Your task to perform on an android device: open app "Nova Launcher" Image 0: 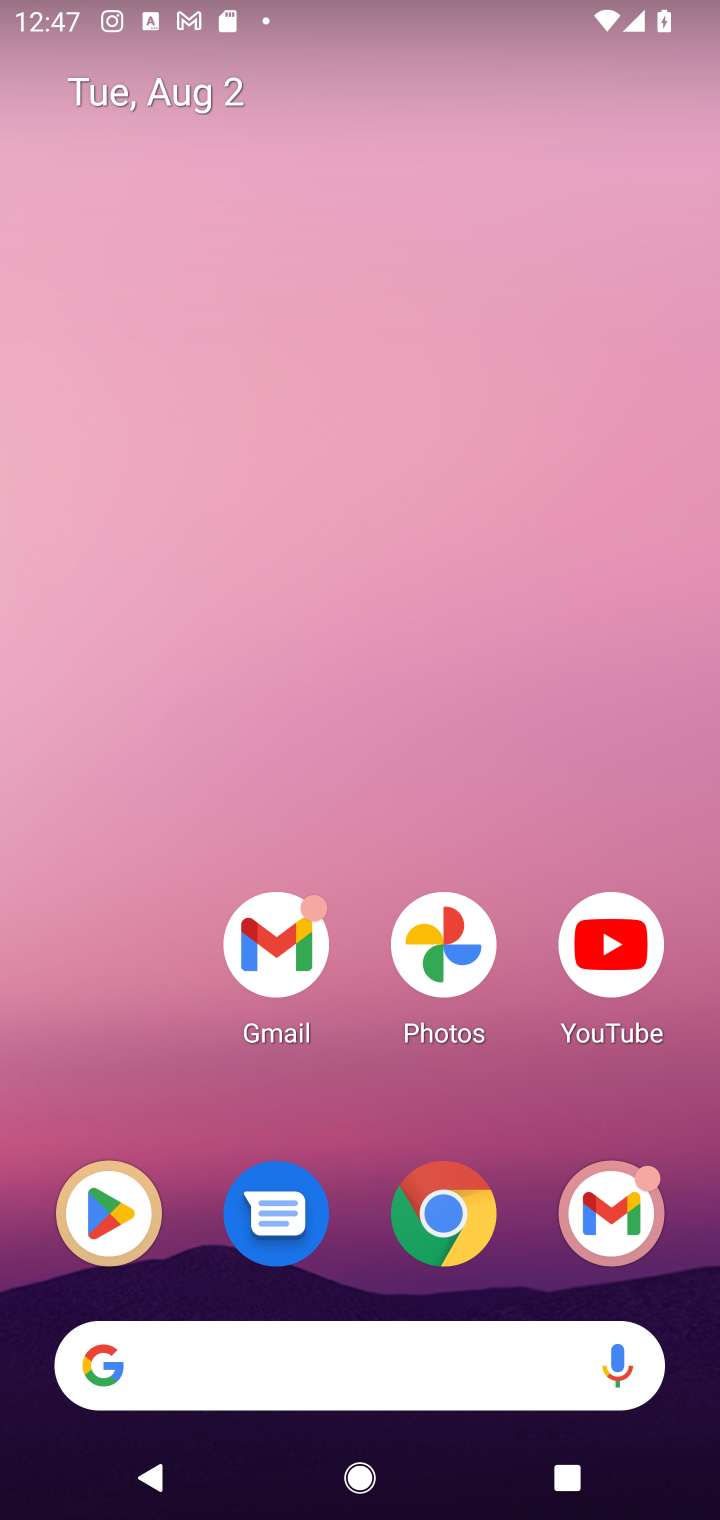
Step 0: click (122, 1192)
Your task to perform on an android device: open app "Nova Launcher" Image 1: 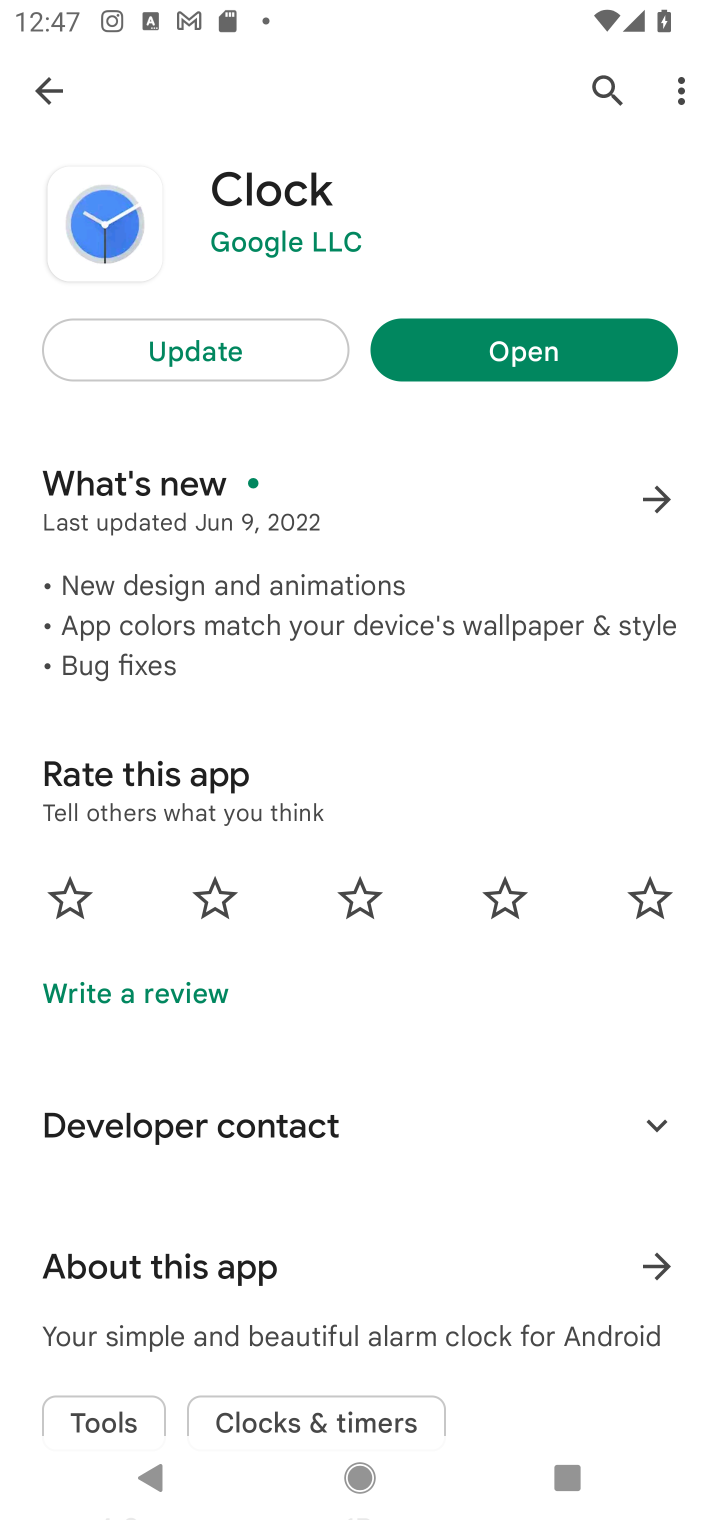
Step 1: click (49, 92)
Your task to perform on an android device: open app "Nova Launcher" Image 2: 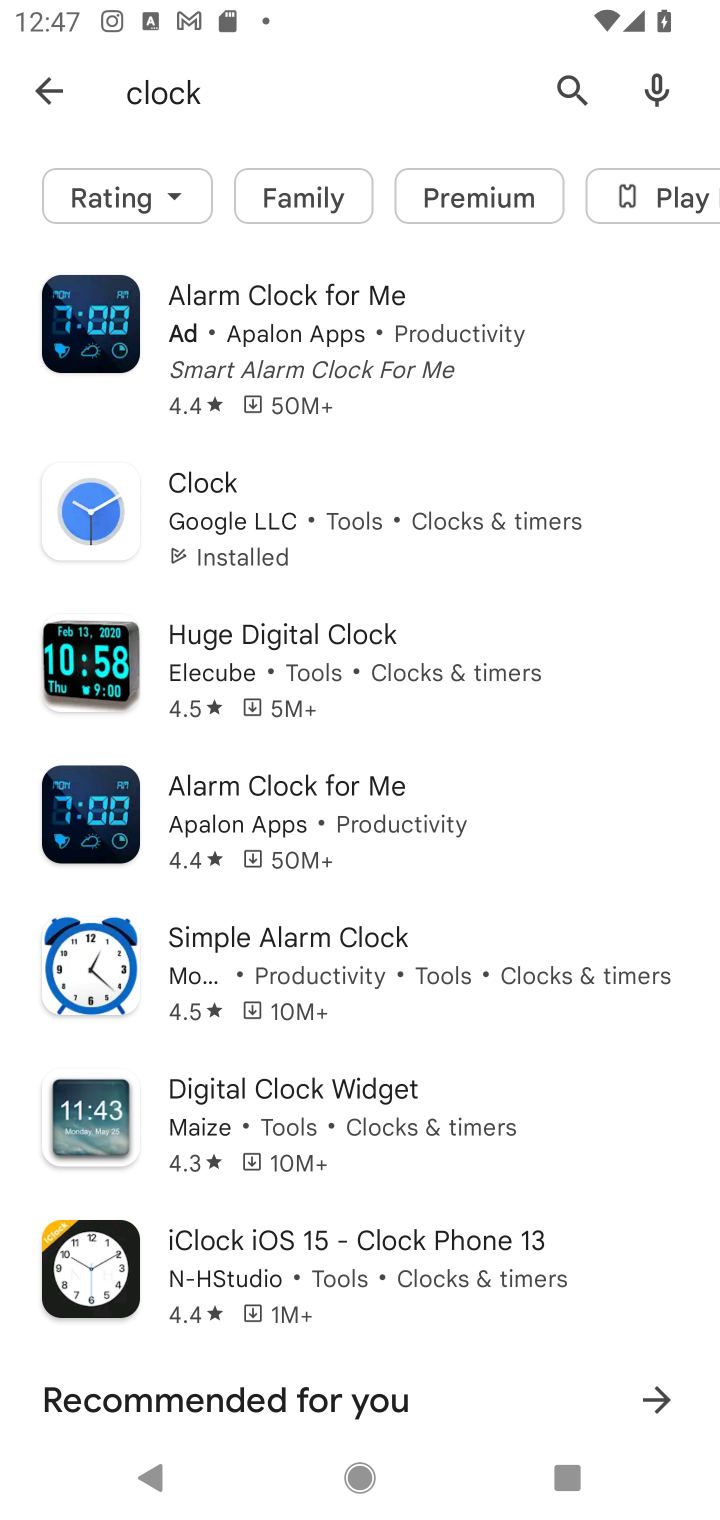
Step 2: click (39, 75)
Your task to perform on an android device: open app "Nova Launcher" Image 3: 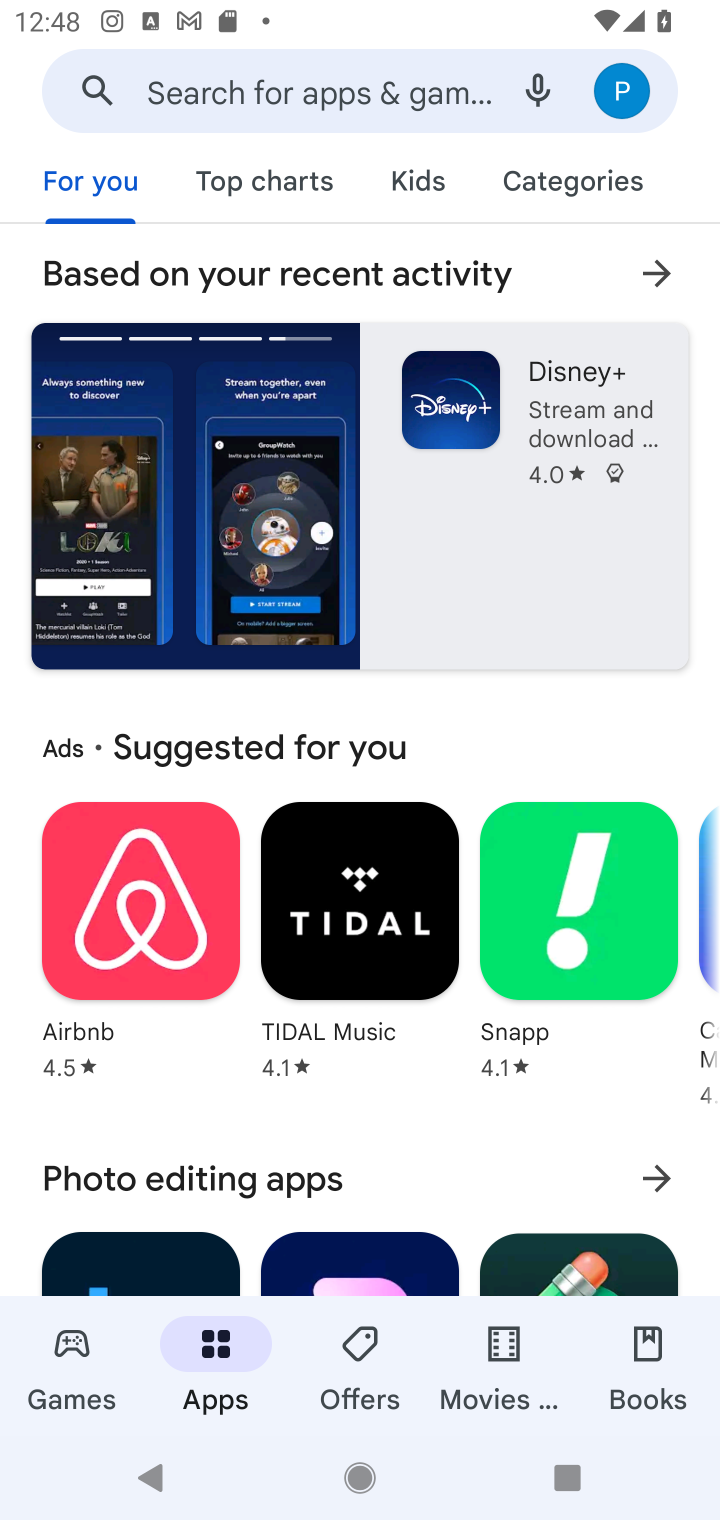
Step 3: click (317, 86)
Your task to perform on an android device: open app "Nova Launcher" Image 4: 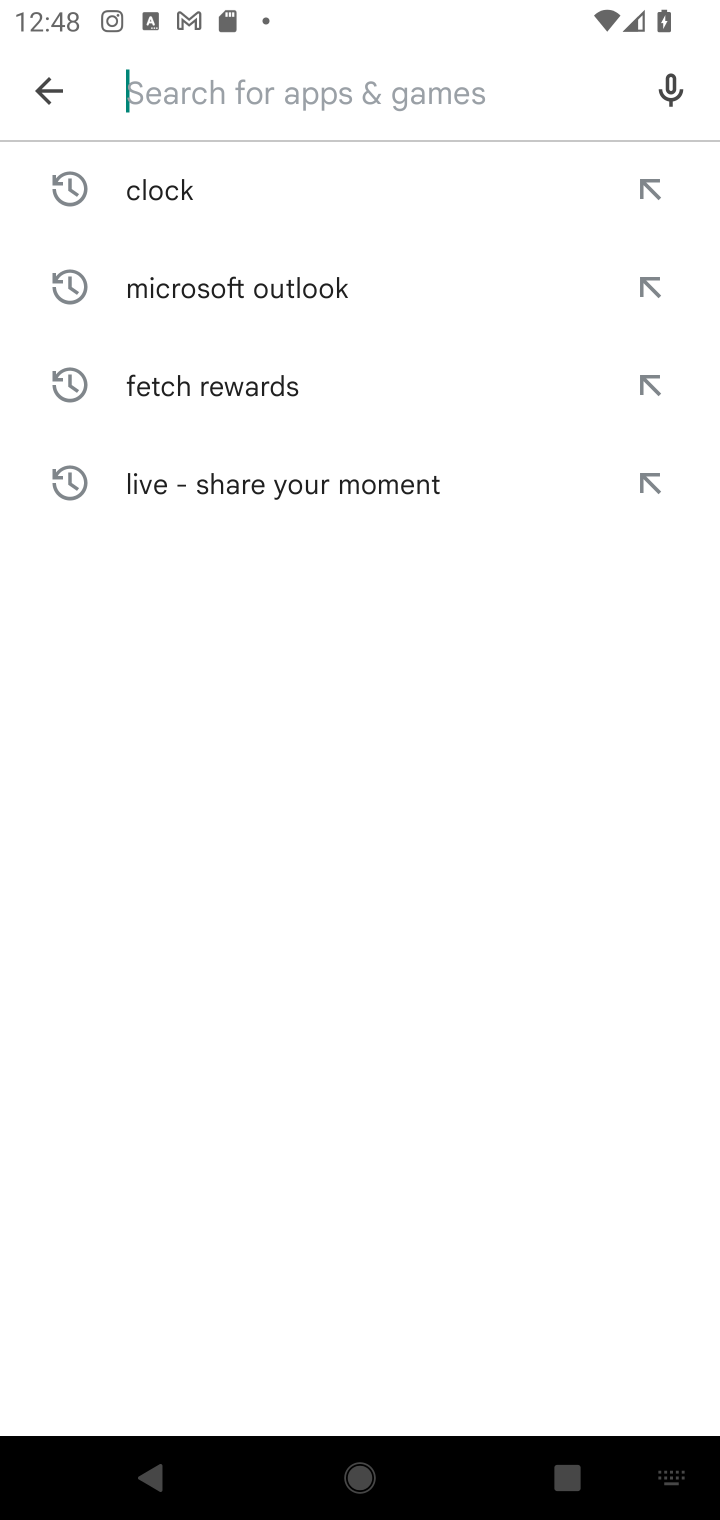
Step 4: type "Nova Launcher"
Your task to perform on an android device: open app "Nova Launcher" Image 5: 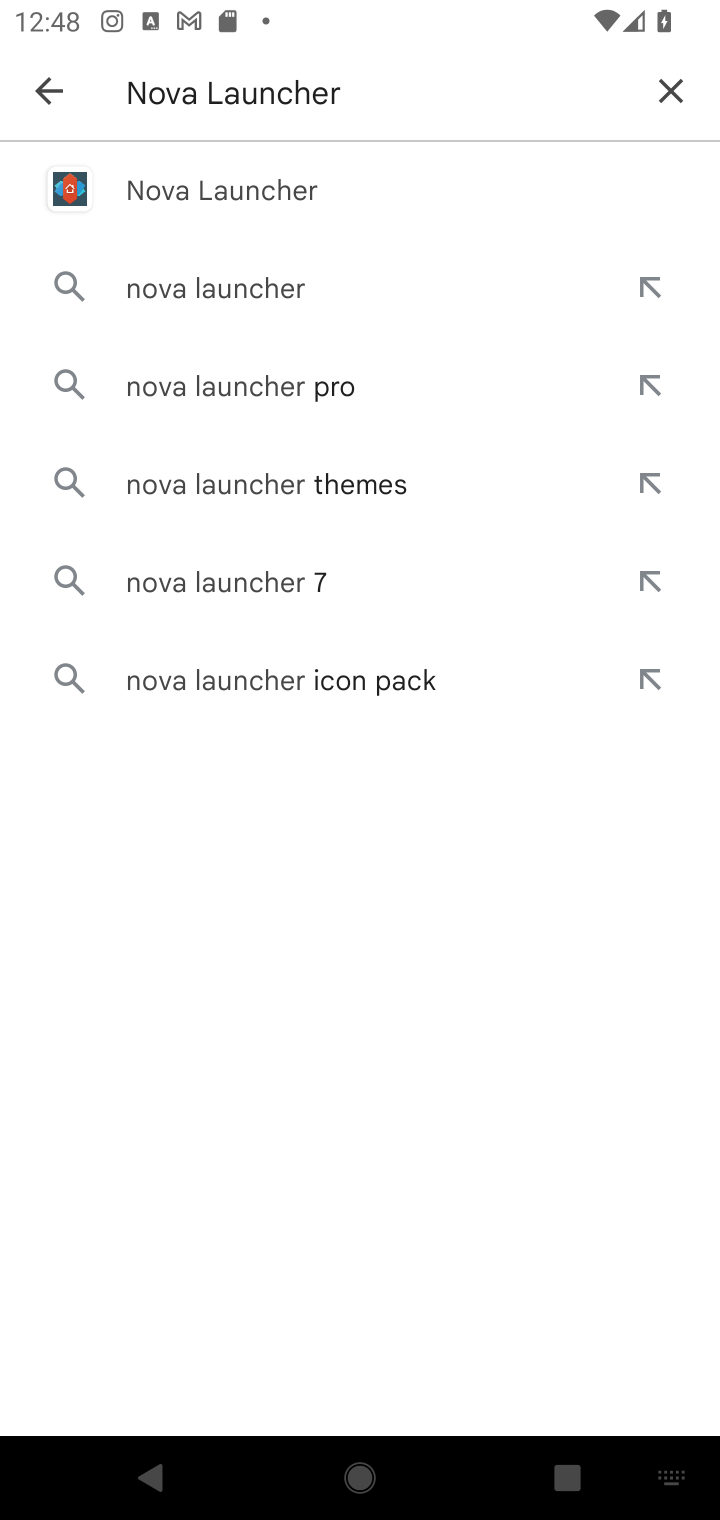
Step 5: click (248, 201)
Your task to perform on an android device: open app "Nova Launcher" Image 6: 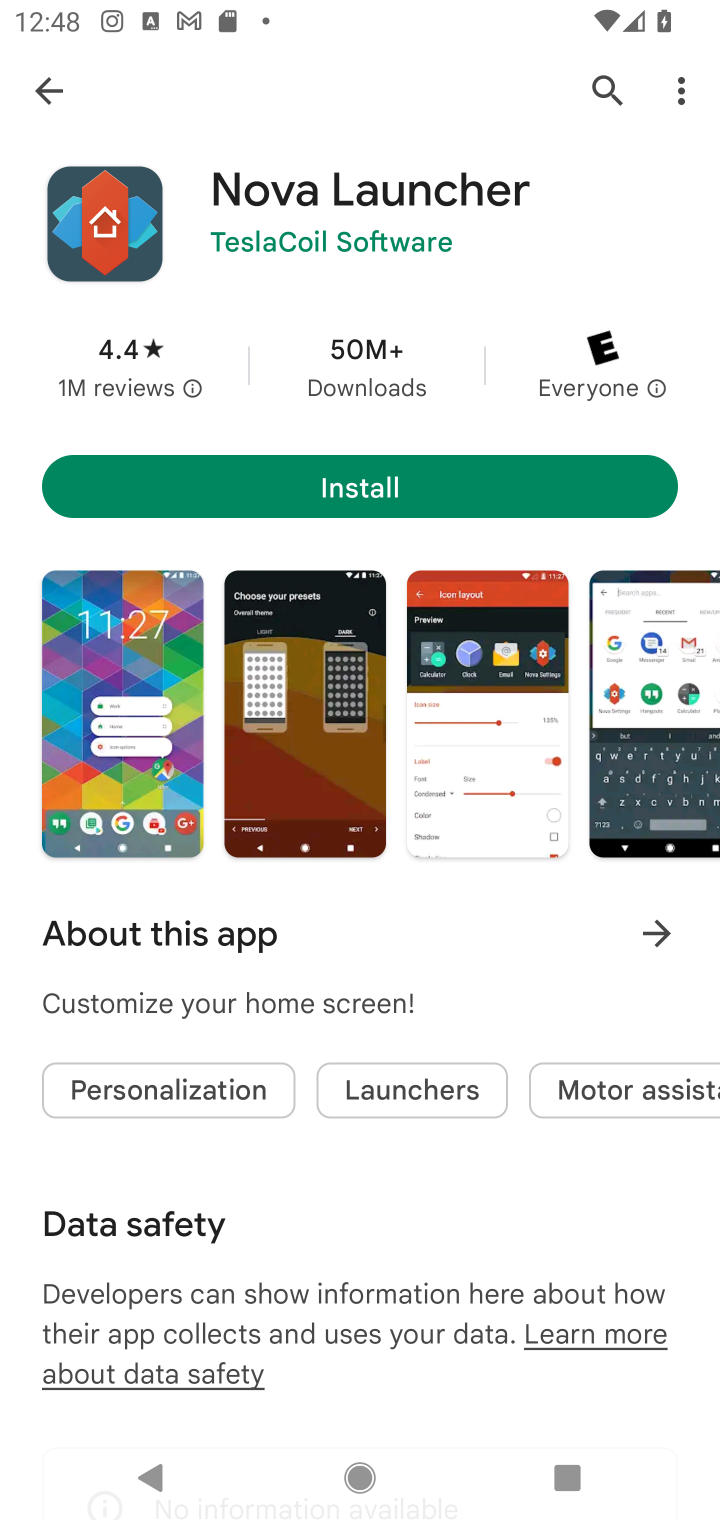
Step 6: task complete